Your task to perform on an android device: Open display settings Image 0: 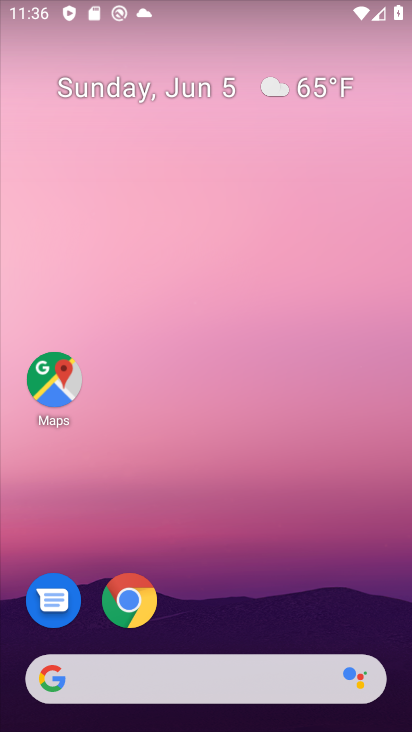
Step 0: drag from (395, 714) to (354, 92)
Your task to perform on an android device: Open display settings Image 1: 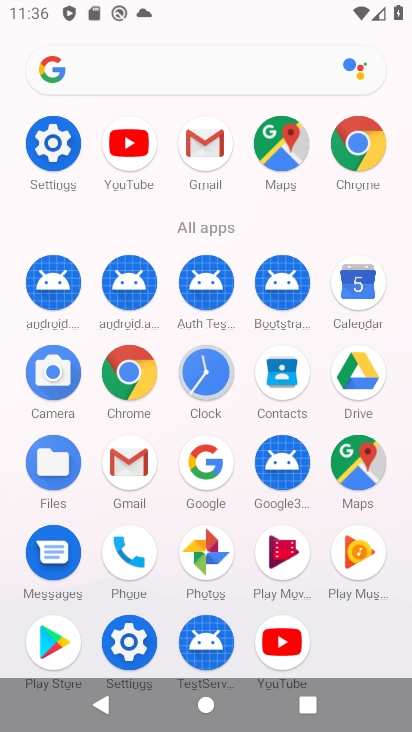
Step 1: click (50, 133)
Your task to perform on an android device: Open display settings Image 2: 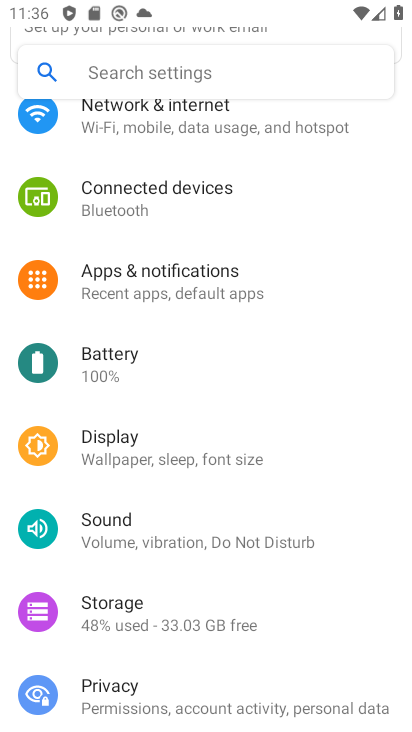
Step 2: click (155, 438)
Your task to perform on an android device: Open display settings Image 3: 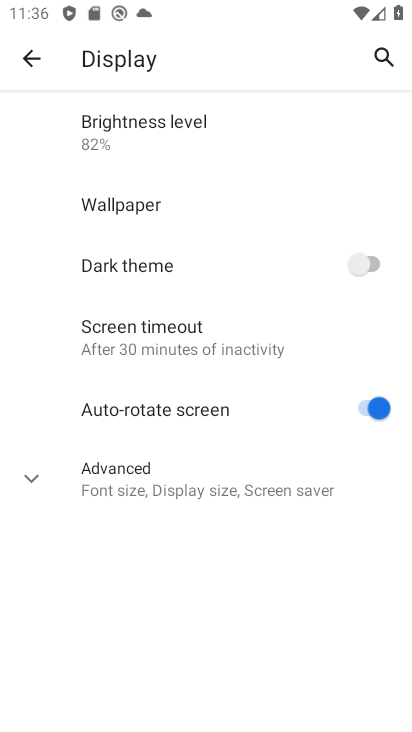
Step 3: click (44, 466)
Your task to perform on an android device: Open display settings Image 4: 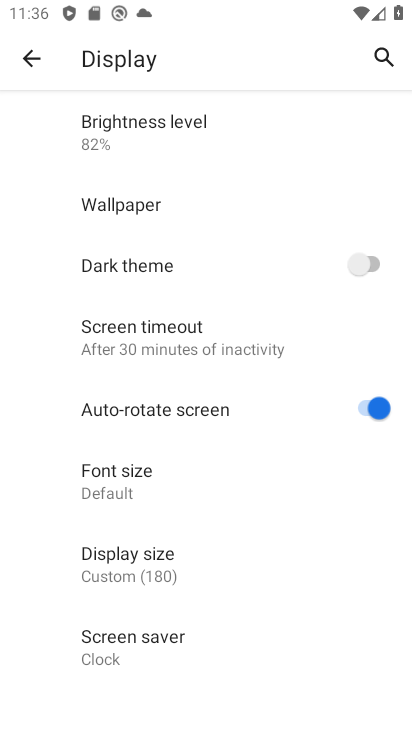
Step 4: task complete